Your task to perform on an android device: star an email in the gmail app Image 0: 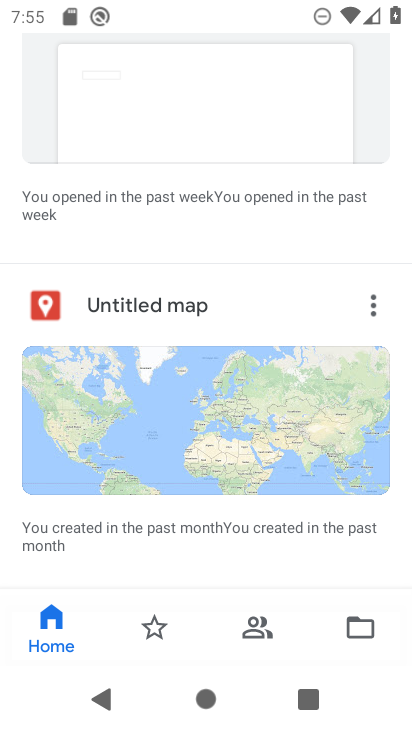
Step 0: press home button
Your task to perform on an android device: star an email in the gmail app Image 1: 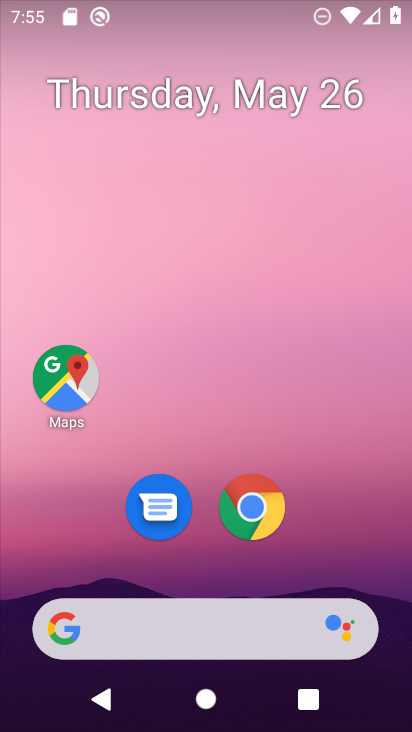
Step 1: drag from (289, 555) to (250, 19)
Your task to perform on an android device: star an email in the gmail app Image 2: 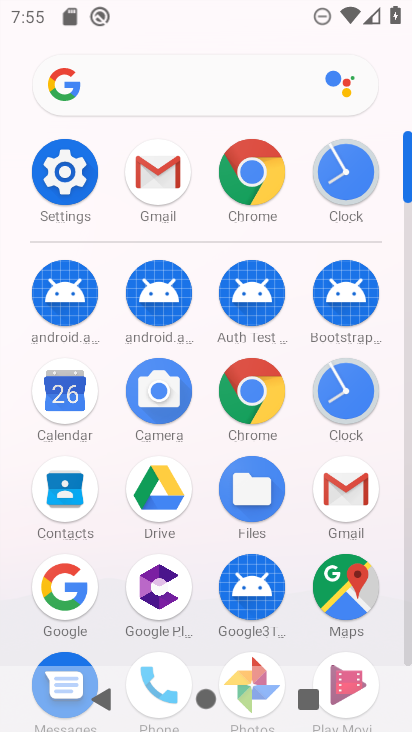
Step 2: click (144, 211)
Your task to perform on an android device: star an email in the gmail app Image 3: 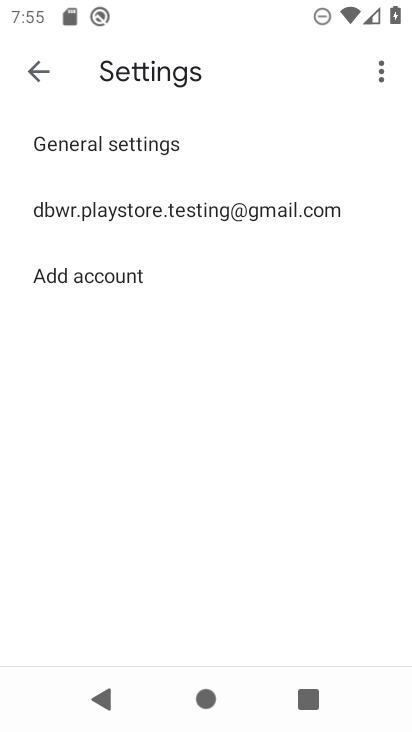
Step 3: click (35, 77)
Your task to perform on an android device: star an email in the gmail app Image 4: 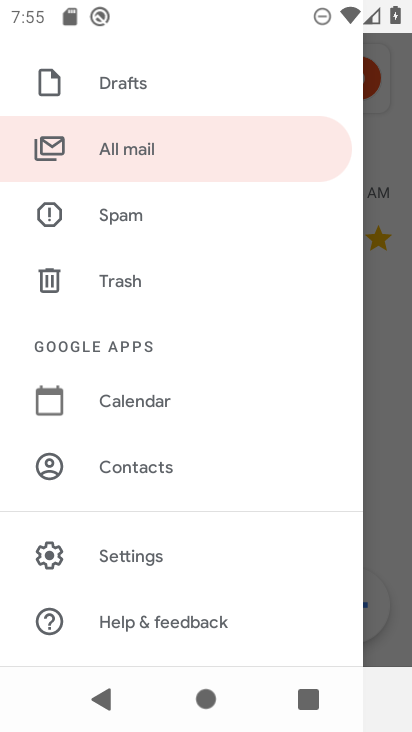
Step 4: click (130, 165)
Your task to perform on an android device: star an email in the gmail app Image 5: 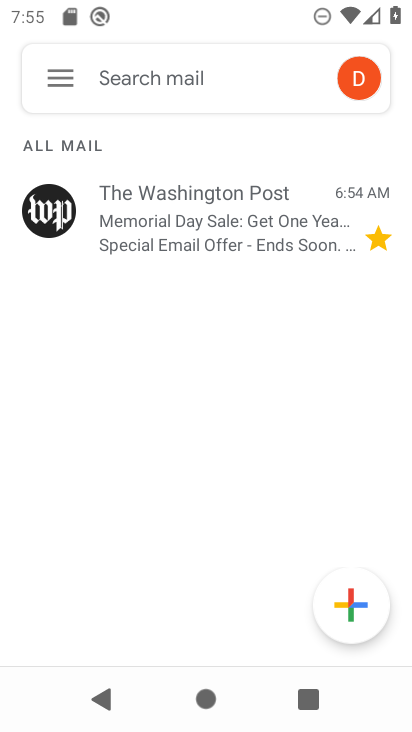
Step 5: task complete